Your task to perform on an android device: Search for Mexican restaurants on Maps Image 0: 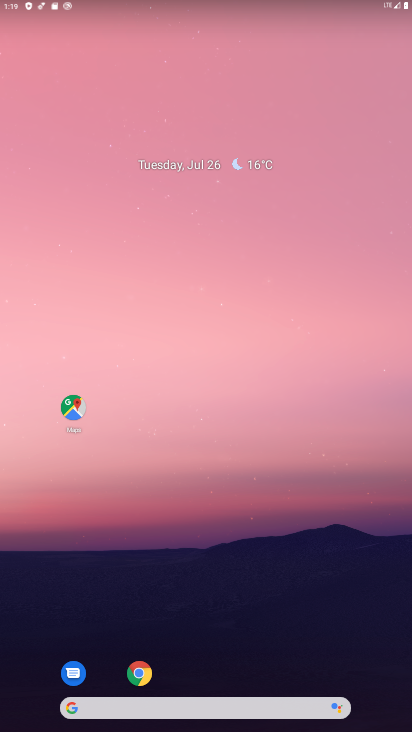
Step 0: drag from (213, 724) to (201, 202)
Your task to perform on an android device: Search for Mexican restaurants on Maps Image 1: 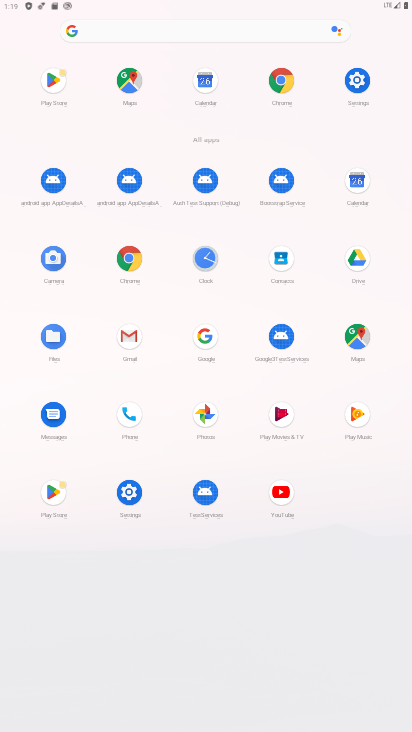
Step 1: click (365, 331)
Your task to perform on an android device: Search for Mexican restaurants on Maps Image 2: 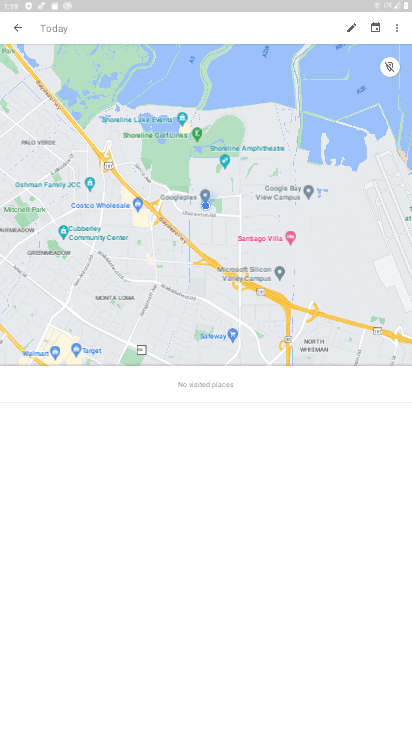
Step 2: click (14, 21)
Your task to perform on an android device: Search for Mexican restaurants on Maps Image 3: 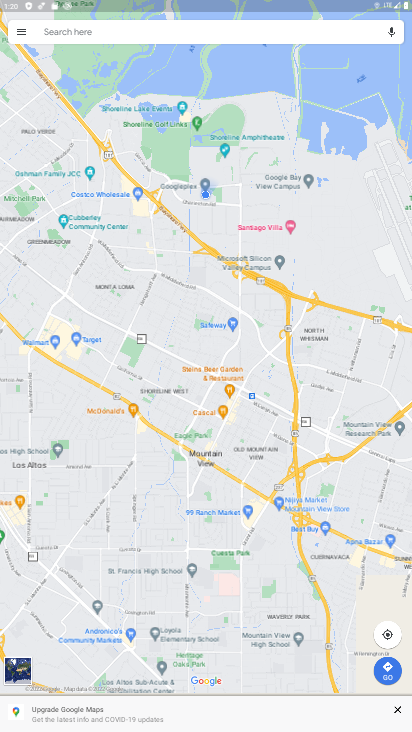
Step 3: click (159, 30)
Your task to perform on an android device: Search for Mexican restaurants on Maps Image 4: 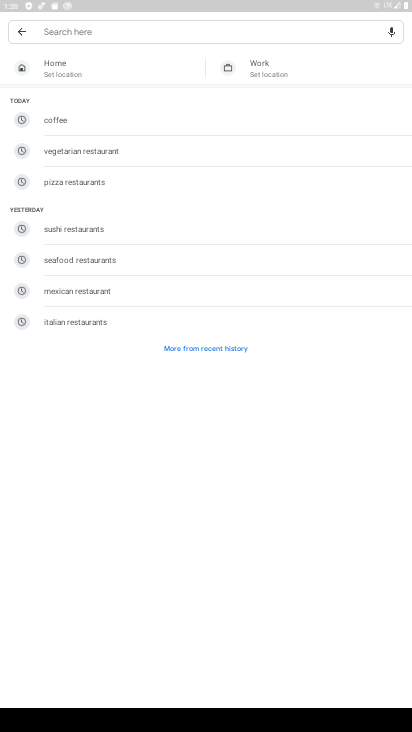
Step 4: type "Mwxican restaurants"
Your task to perform on an android device: Search for Mexican restaurants on Maps Image 5: 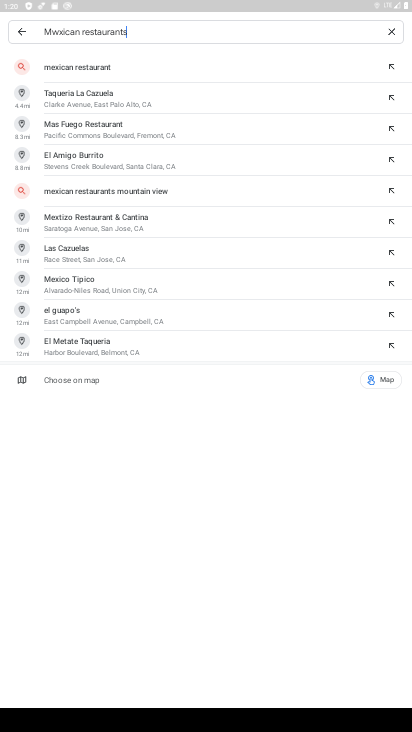
Step 5: click (59, 68)
Your task to perform on an android device: Search for Mexican restaurants on Maps Image 6: 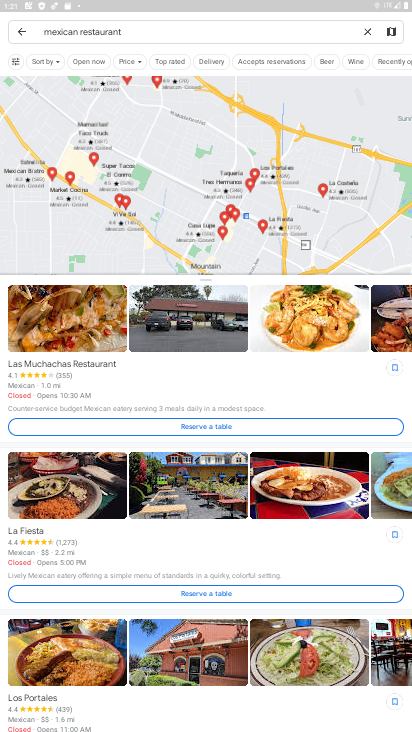
Step 6: task complete